Your task to perform on an android device: What's the weather going to be this weekend? Image 0: 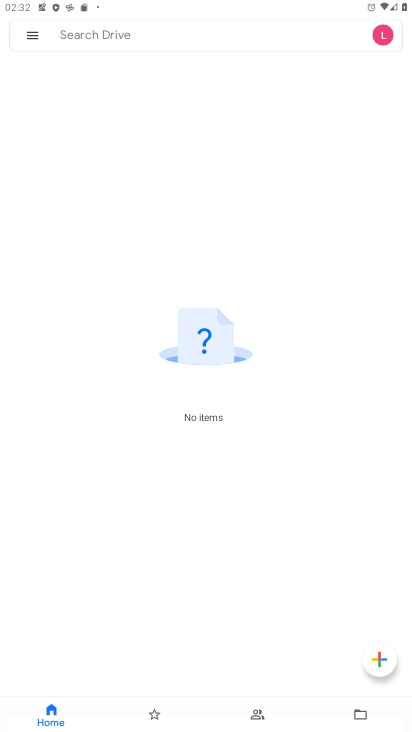
Step 0: press home button
Your task to perform on an android device: What's the weather going to be this weekend? Image 1: 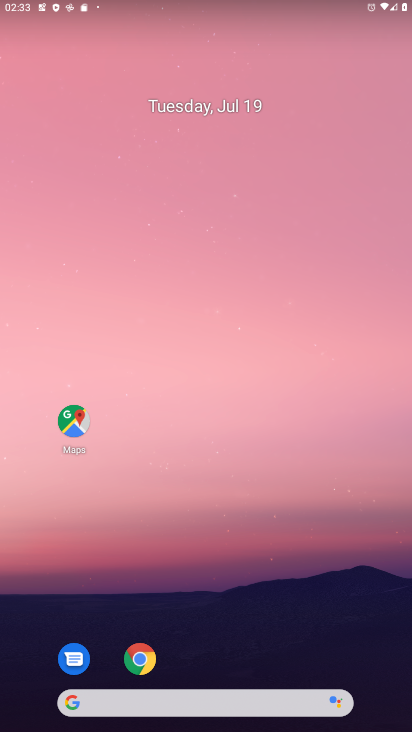
Step 1: click (142, 653)
Your task to perform on an android device: What's the weather going to be this weekend? Image 2: 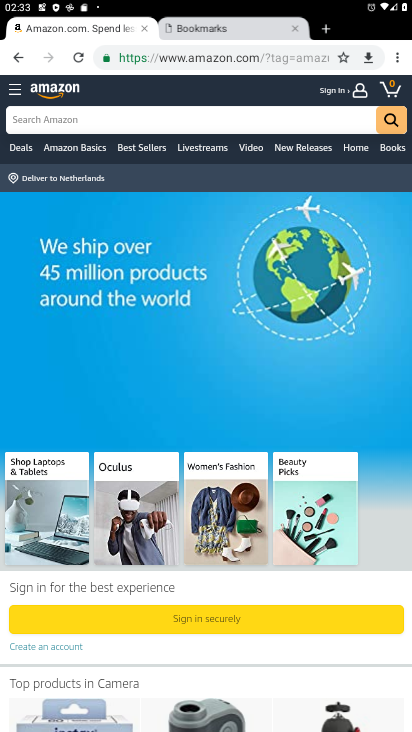
Step 2: click (169, 55)
Your task to perform on an android device: What's the weather going to be this weekend? Image 3: 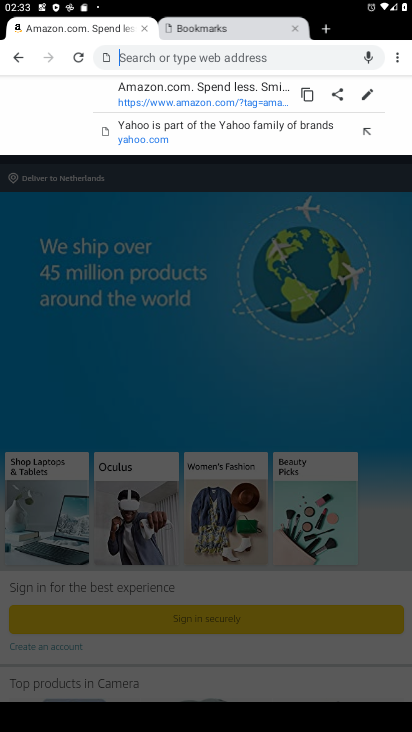
Step 3: type "What's the weather going to be this weekend?"
Your task to perform on an android device: What's the weather going to be this weekend? Image 4: 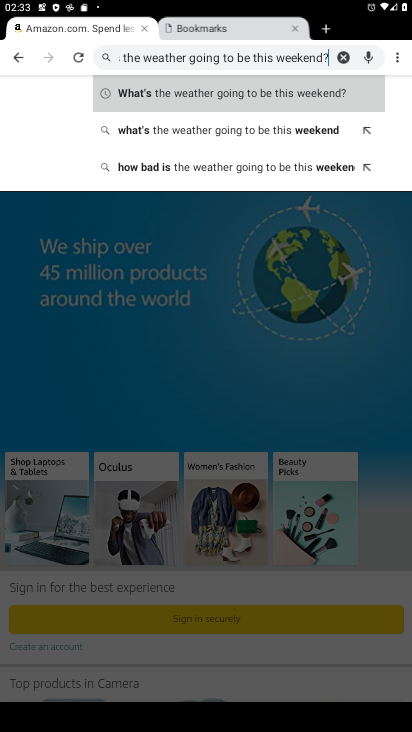
Step 4: type ""
Your task to perform on an android device: What's the weather going to be this weekend? Image 5: 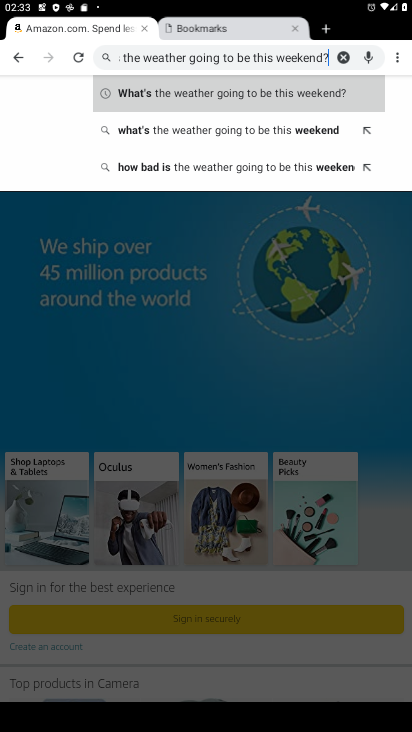
Step 5: click (241, 88)
Your task to perform on an android device: What's the weather going to be this weekend? Image 6: 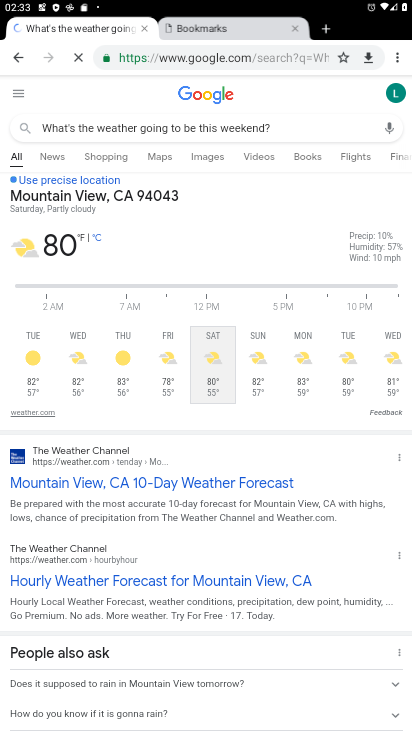
Step 6: task complete